Your task to perform on an android device: turn on sleep mode Image 0: 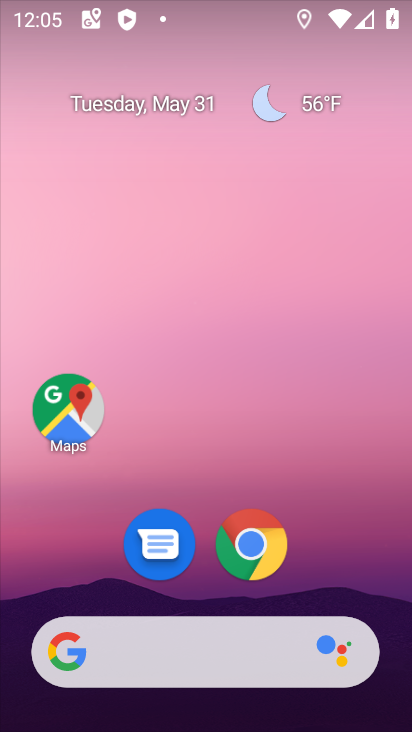
Step 0: drag from (338, 490) to (241, 37)
Your task to perform on an android device: turn on sleep mode Image 1: 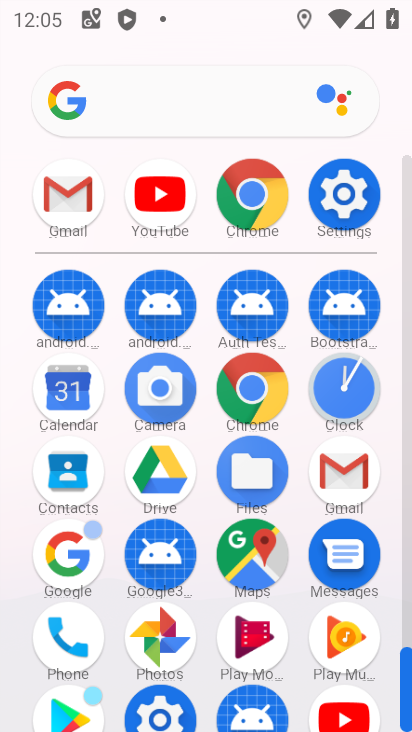
Step 1: click (342, 193)
Your task to perform on an android device: turn on sleep mode Image 2: 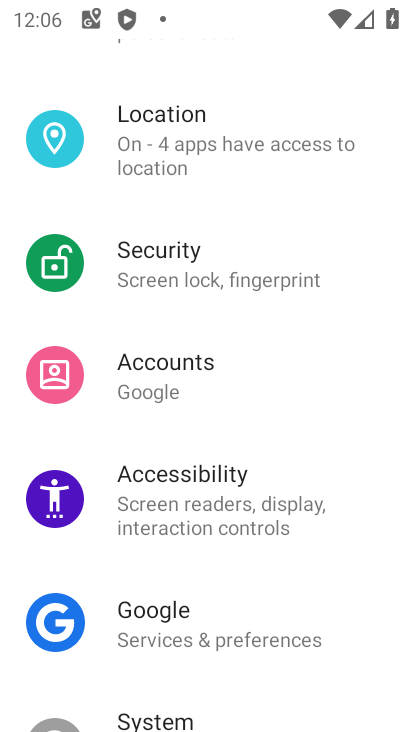
Step 2: drag from (191, 194) to (210, 460)
Your task to perform on an android device: turn on sleep mode Image 3: 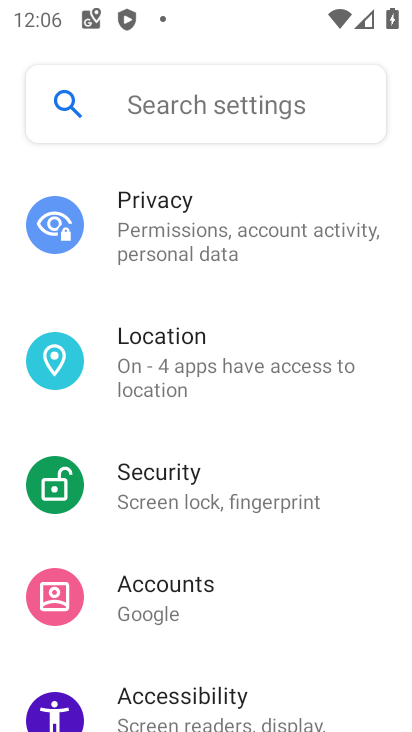
Step 3: drag from (177, 284) to (262, 657)
Your task to perform on an android device: turn on sleep mode Image 4: 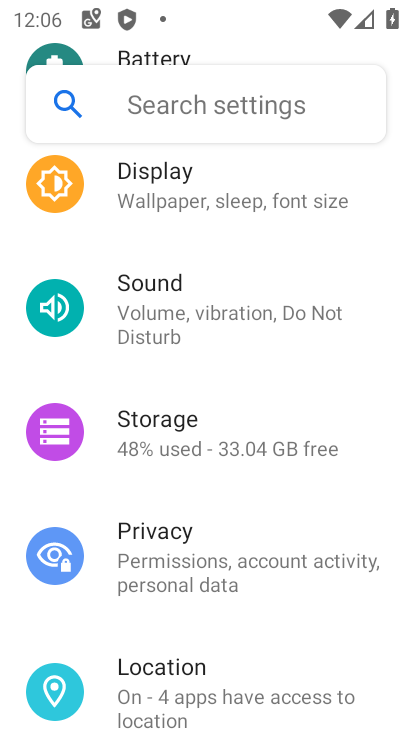
Step 4: drag from (216, 233) to (318, 598)
Your task to perform on an android device: turn on sleep mode Image 5: 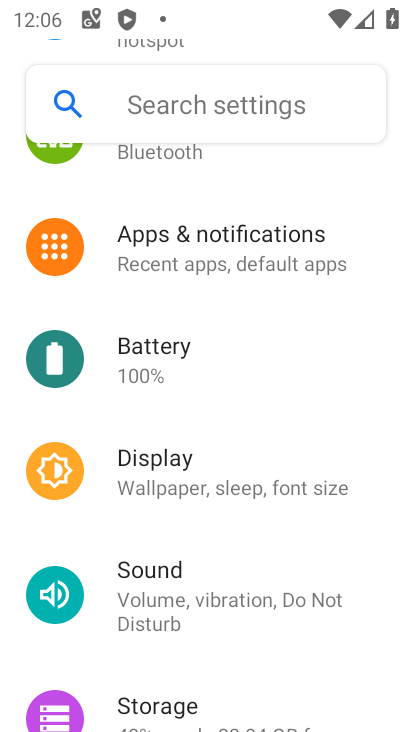
Step 5: drag from (202, 290) to (363, 693)
Your task to perform on an android device: turn on sleep mode Image 6: 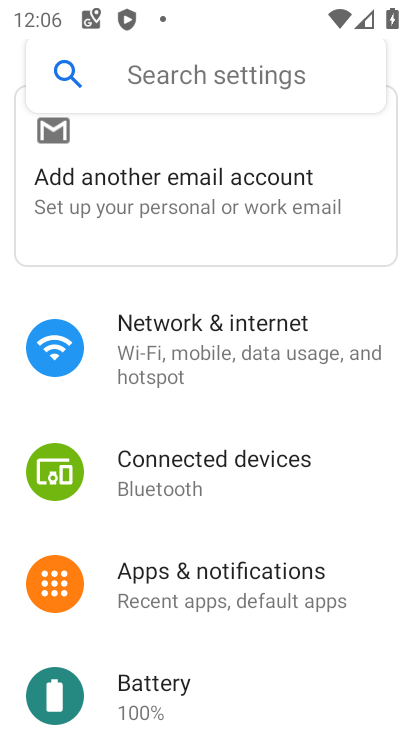
Step 6: drag from (196, 500) to (169, 278)
Your task to perform on an android device: turn on sleep mode Image 7: 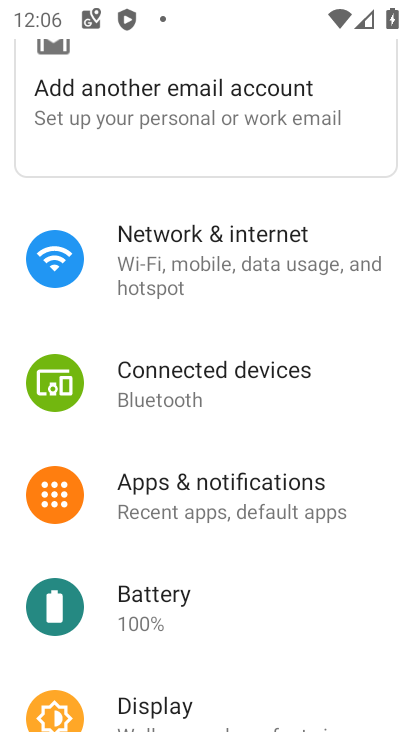
Step 7: click (212, 495)
Your task to perform on an android device: turn on sleep mode Image 8: 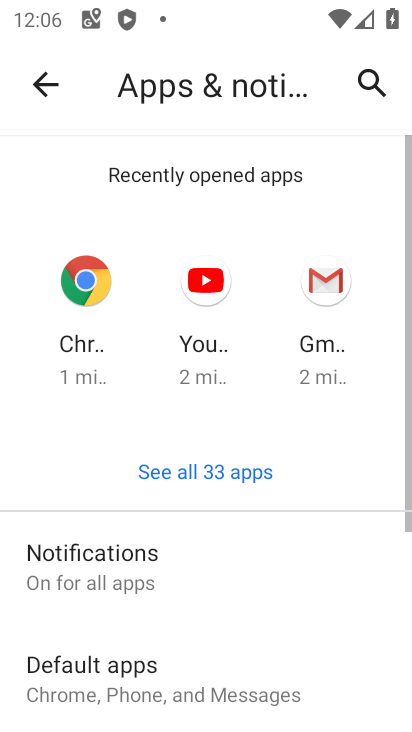
Step 8: task complete